Your task to perform on an android device: star an email in the gmail app Image 0: 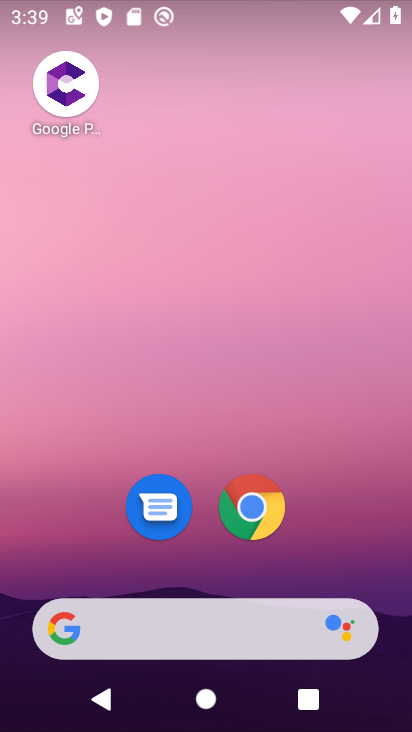
Step 0: drag from (310, 566) to (339, 150)
Your task to perform on an android device: star an email in the gmail app Image 1: 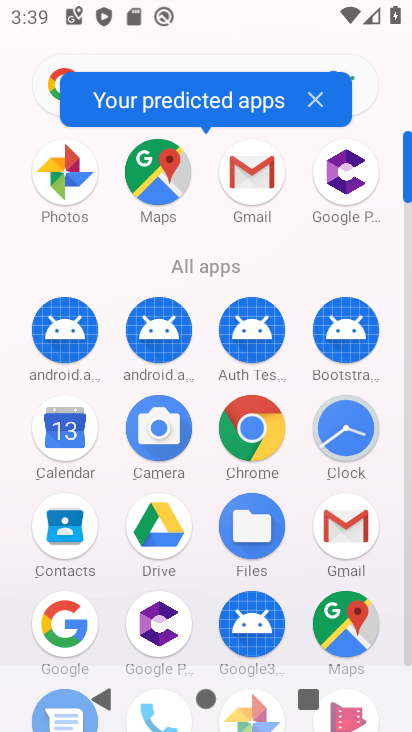
Step 1: click (256, 199)
Your task to perform on an android device: star an email in the gmail app Image 2: 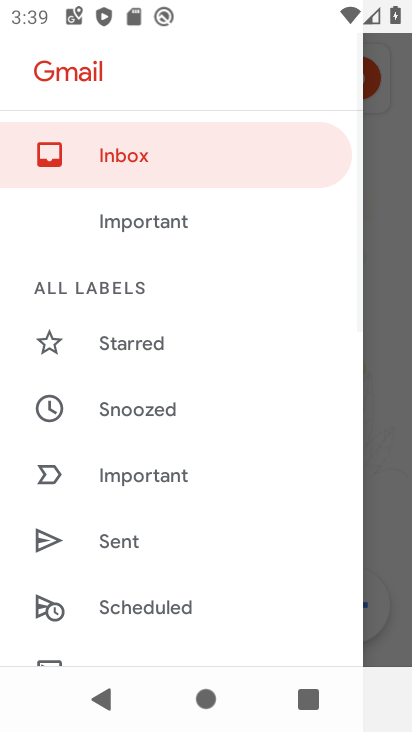
Step 2: drag from (213, 541) to (232, 135)
Your task to perform on an android device: star an email in the gmail app Image 3: 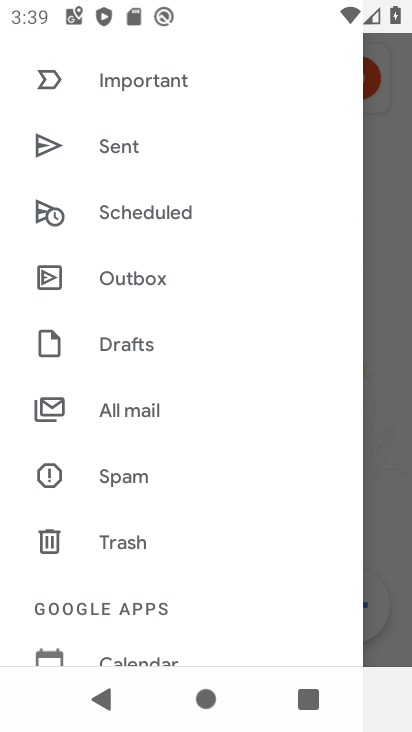
Step 3: click (147, 415)
Your task to perform on an android device: star an email in the gmail app Image 4: 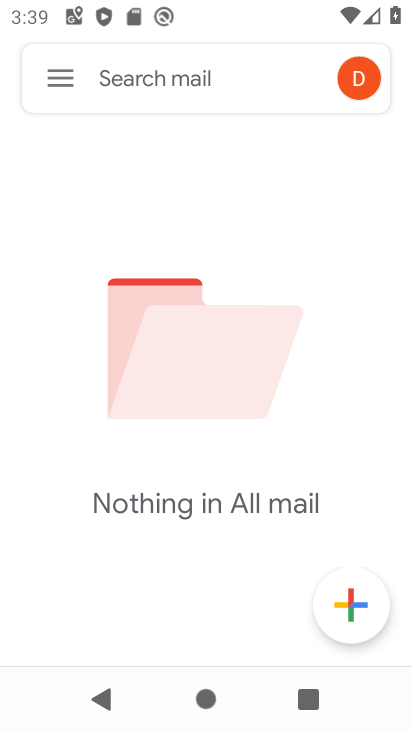
Step 4: task complete